Your task to perform on an android device: change the clock display to digital Image 0: 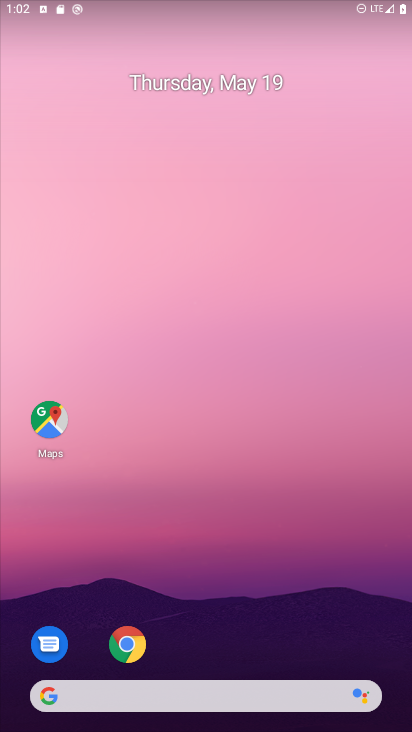
Step 0: drag from (356, 648) to (234, 71)
Your task to perform on an android device: change the clock display to digital Image 1: 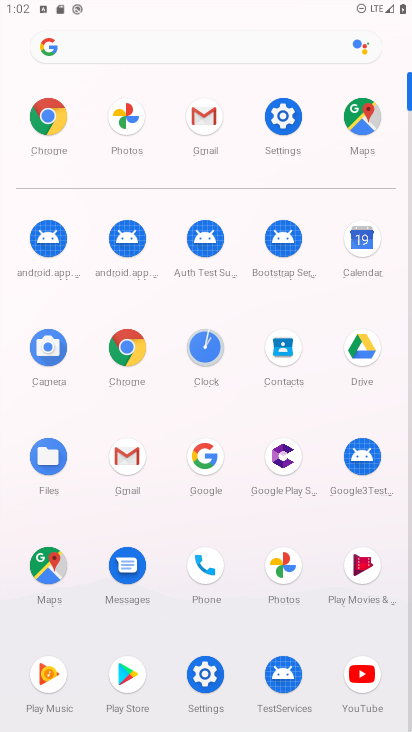
Step 1: click (193, 361)
Your task to perform on an android device: change the clock display to digital Image 2: 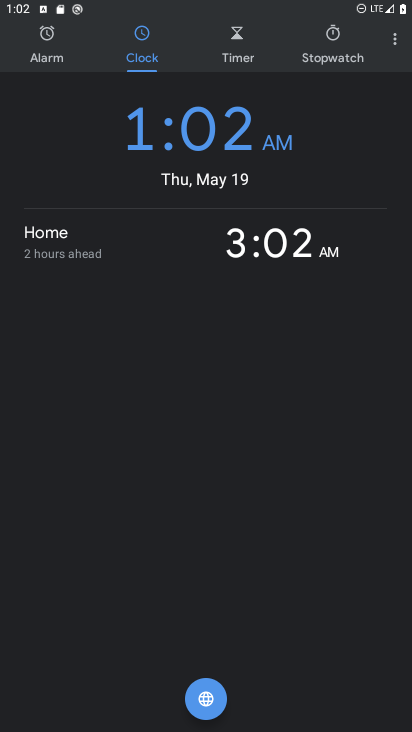
Step 2: click (392, 47)
Your task to perform on an android device: change the clock display to digital Image 3: 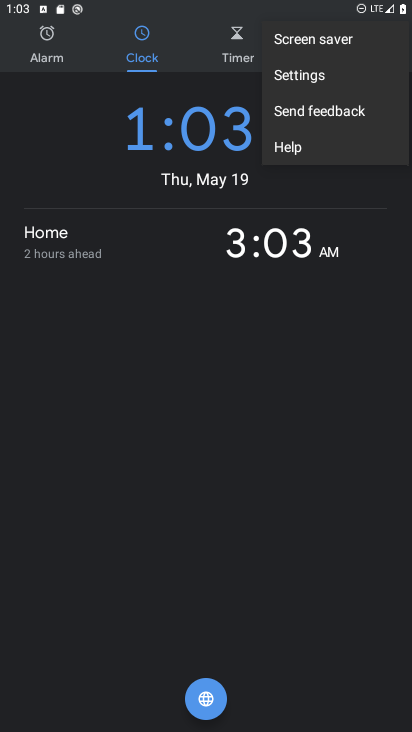
Step 3: click (306, 72)
Your task to perform on an android device: change the clock display to digital Image 4: 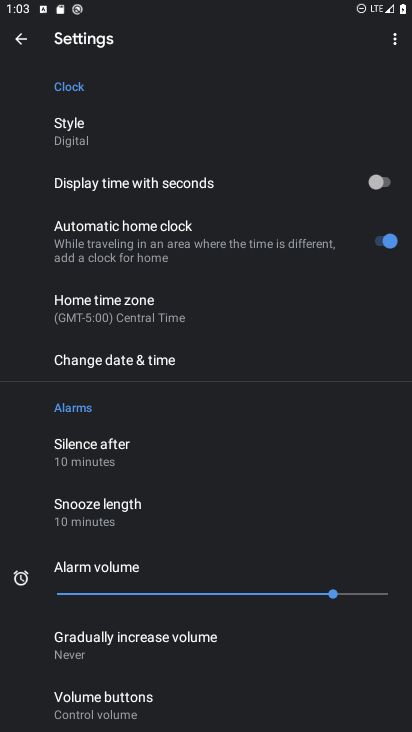
Step 4: click (114, 127)
Your task to perform on an android device: change the clock display to digital Image 5: 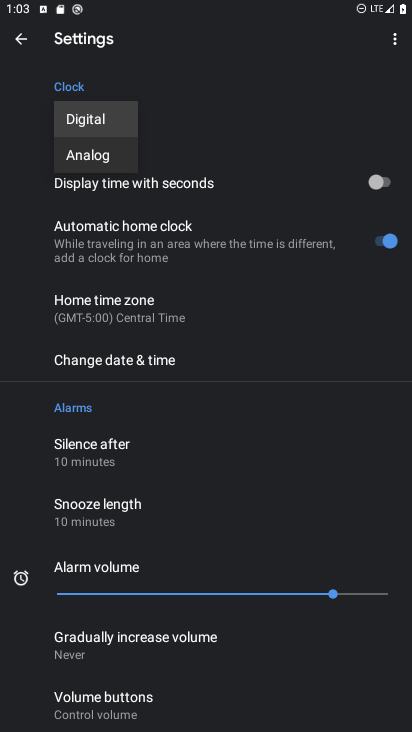
Step 5: click (108, 123)
Your task to perform on an android device: change the clock display to digital Image 6: 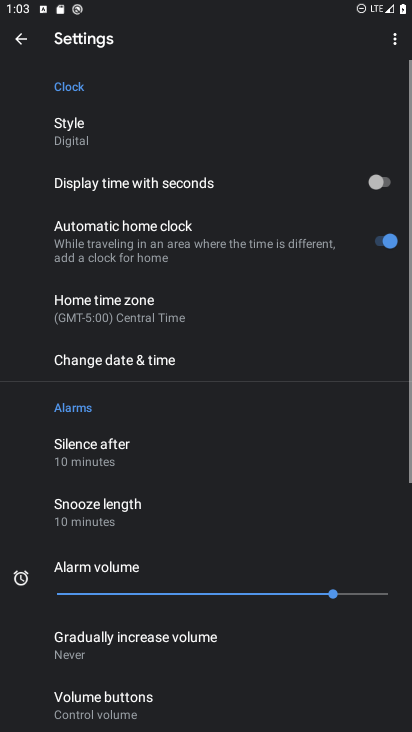
Step 6: task complete